Your task to perform on an android device: turn on translation in the chrome app Image 0: 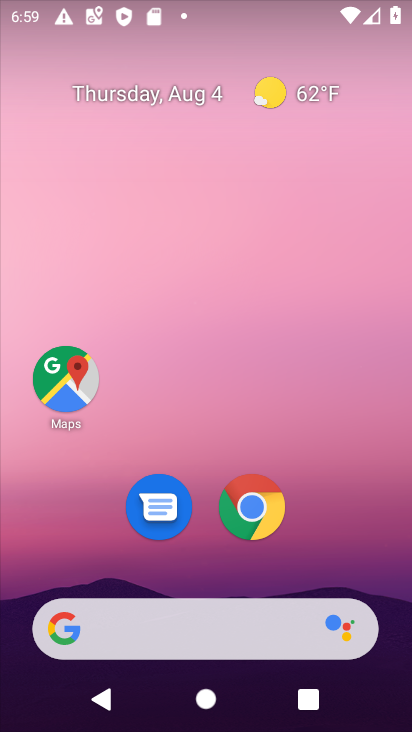
Step 0: drag from (400, 535) to (331, 51)
Your task to perform on an android device: turn on translation in the chrome app Image 1: 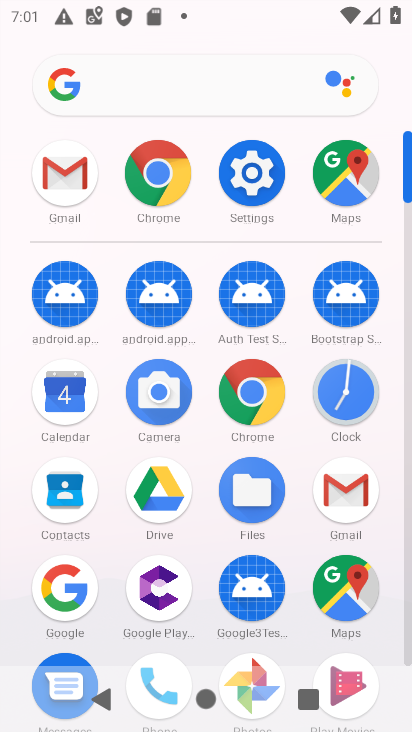
Step 1: click (264, 400)
Your task to perform on an android device: turn on translation in the chrome app Image 2: 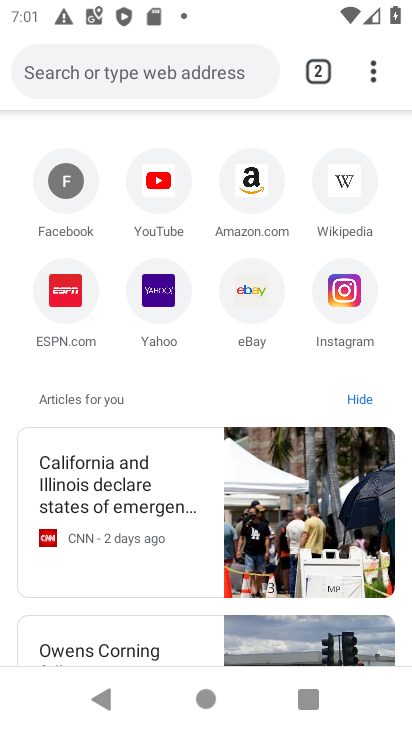
Step 2: click (374, 65)
Your task to perform on an android device: turn on translation in the chrome app Image 3: 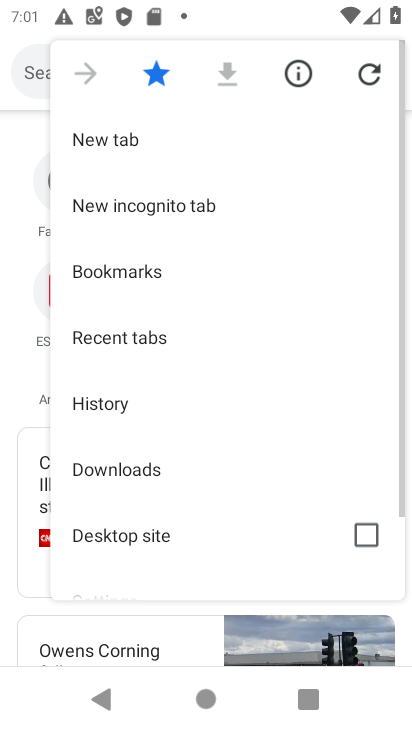
Step 3: drag from (185, 495) to (173, 20)
Your task to perform on an android device: turn on translation in the chrome app Image 4: 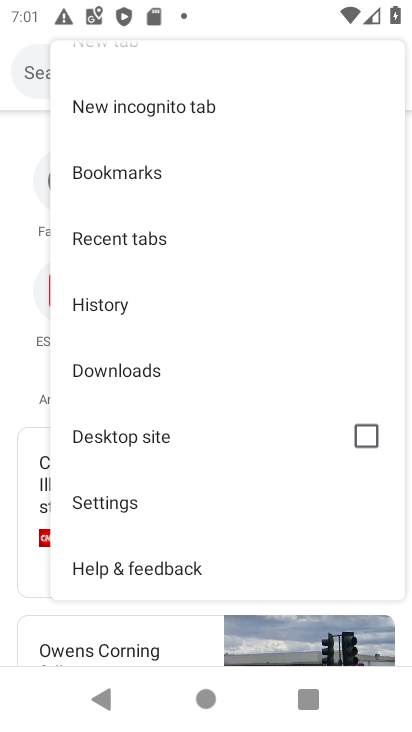
Step 4: click (121, 498)
Your task to perform on an android device: turn on translation in the chrome app Image 5: 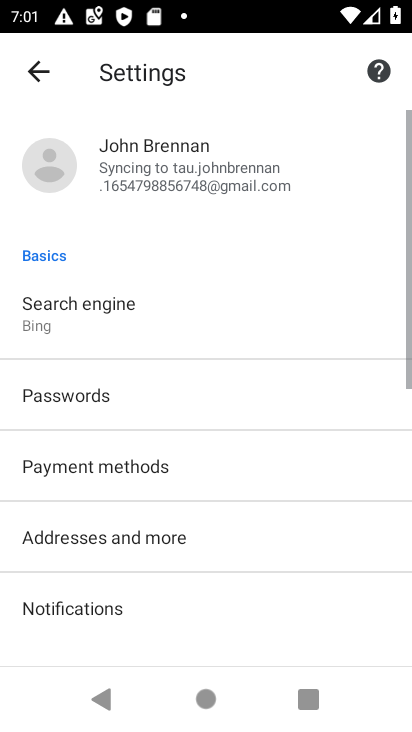
Step 5: drag from (173, 604) to (211, 26)
Your task to perform on an android device: turn on translation in the chrome app Image 6: 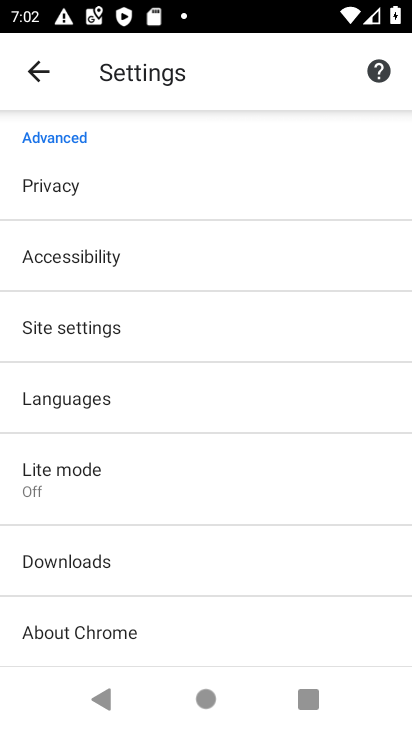
Step 6: click (106, 402)
Your task to perform on an android device: turn on translation in the chrome app Image 7: 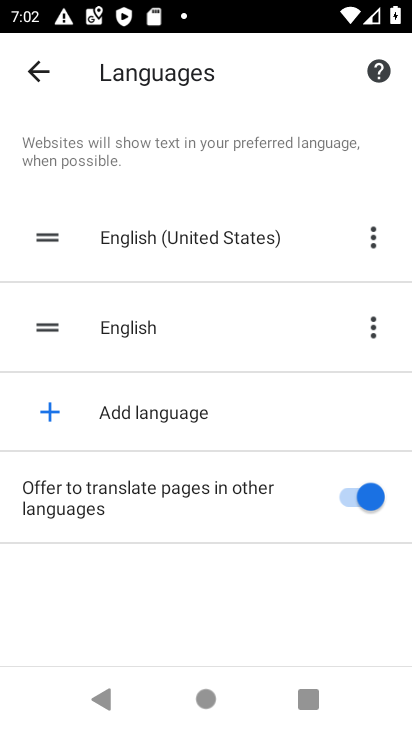
Step 7: click (349, 485)
Your task to perform on an android device: turn on translation in the chrome app Image 8: 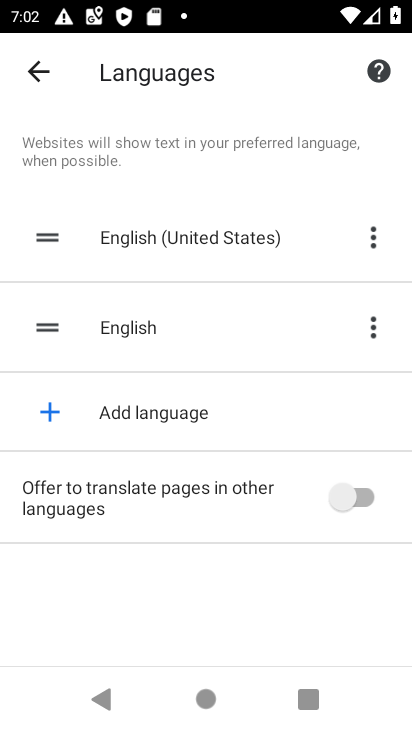
Step 8: click (349, 485)
Your task to perform on an android device: turn on translation in the chrome app Image 9: 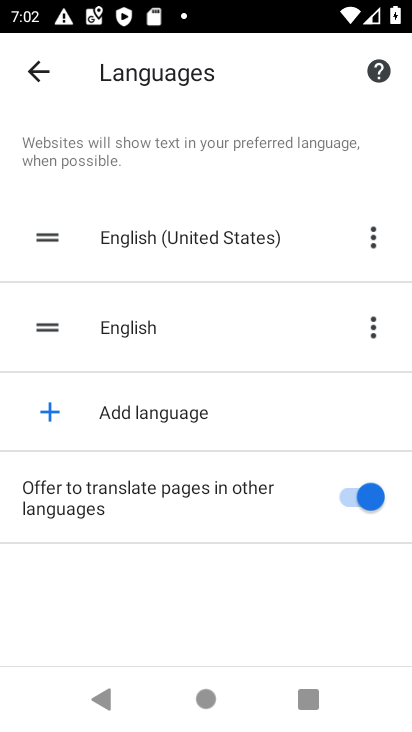
Step 9: task complete